Your task to perform on an android device: toggle wifi Image 0: 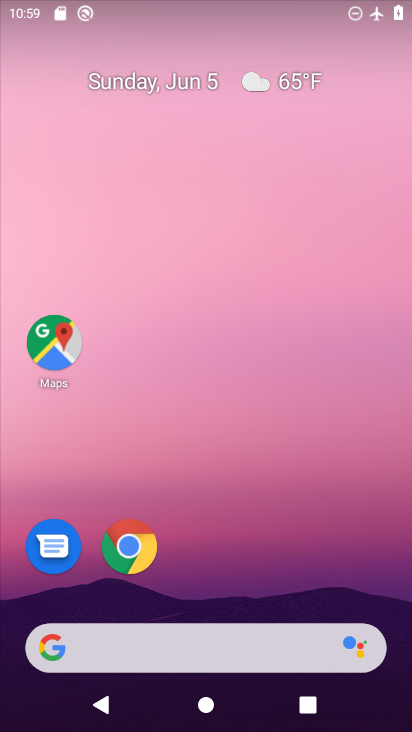
Step 0: drag from (185, 530) to (255, 88)
Your task to perform on an android device: toggle wifi Image 1: 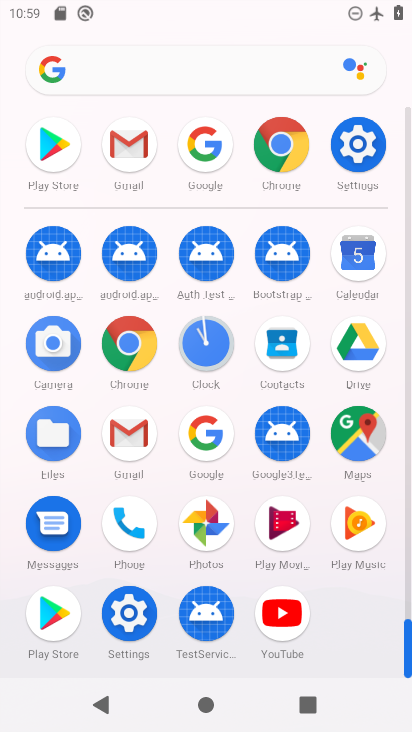
Step 1: click (365, 150)
Your task to perform on an android device: toggle wifi Image 2: 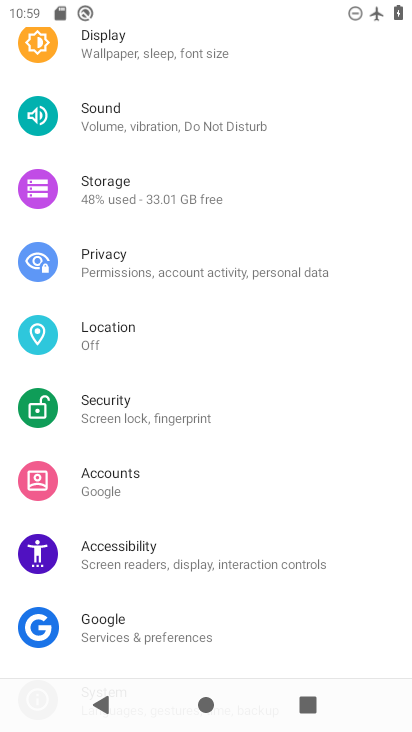
Step 2: drag from (227, 134) to (261, 572)
Your task to perform on an android device: toggle wifi Image 3: 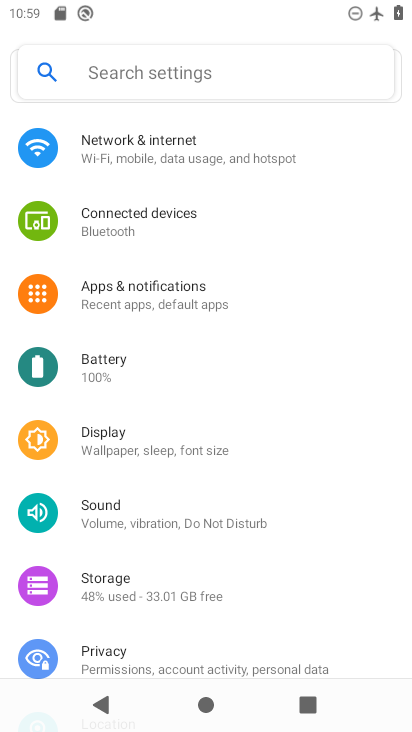
Step 3: click (160, 158)
Your task to perform on an android device: toggle wifi Image 4: 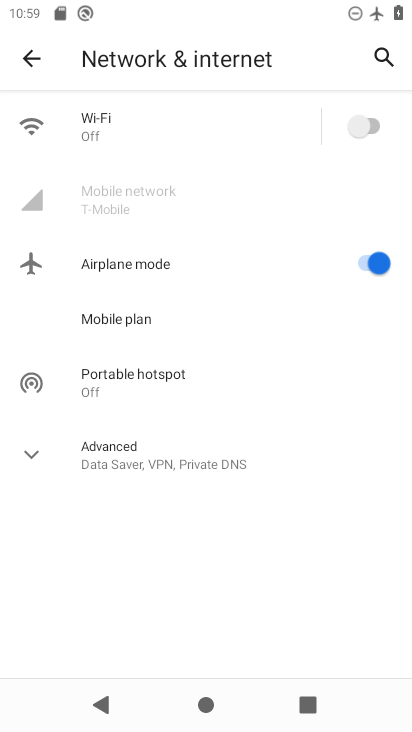
Step 4: click (359, 135)
Your task to perform on an android device: toggle wifi Image 5: 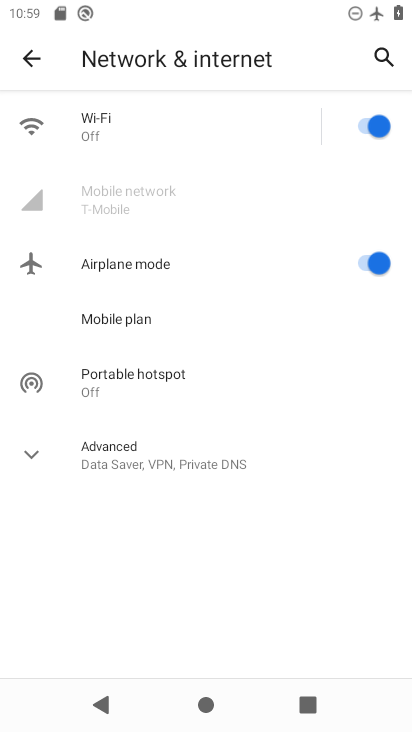
Step 5: task complete